Your task to perform on an android device: Show the shopping cart on ebay.com. Add "acer predator" to the cart on ebay.com Image 0: 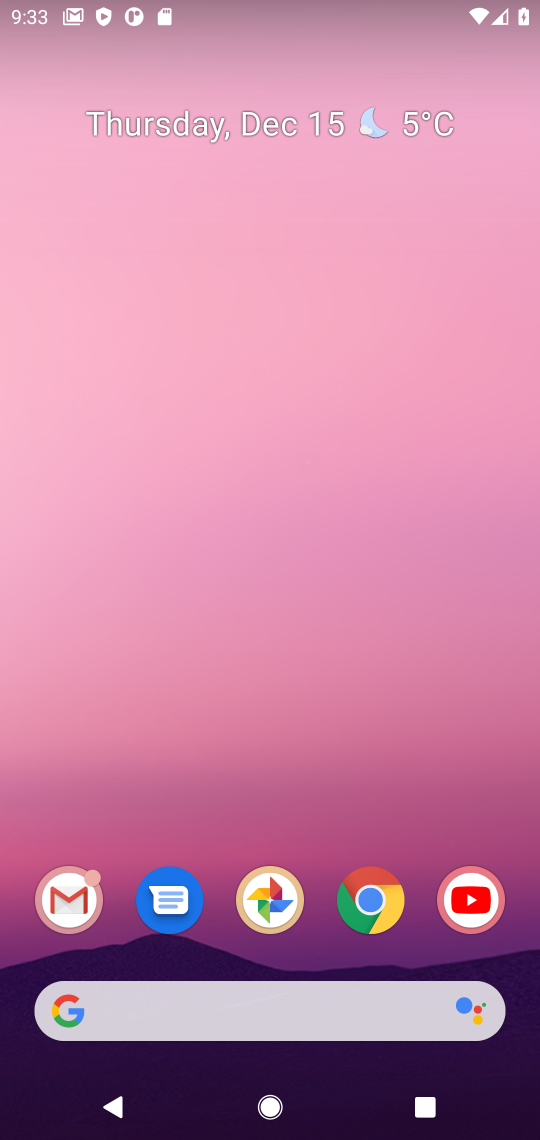
Step 0: click (379, 897)
Your task to perform on an android device: Show the shopping cart on ebay.com. Add "acer predator" to the cart on ebay.com Image 1: 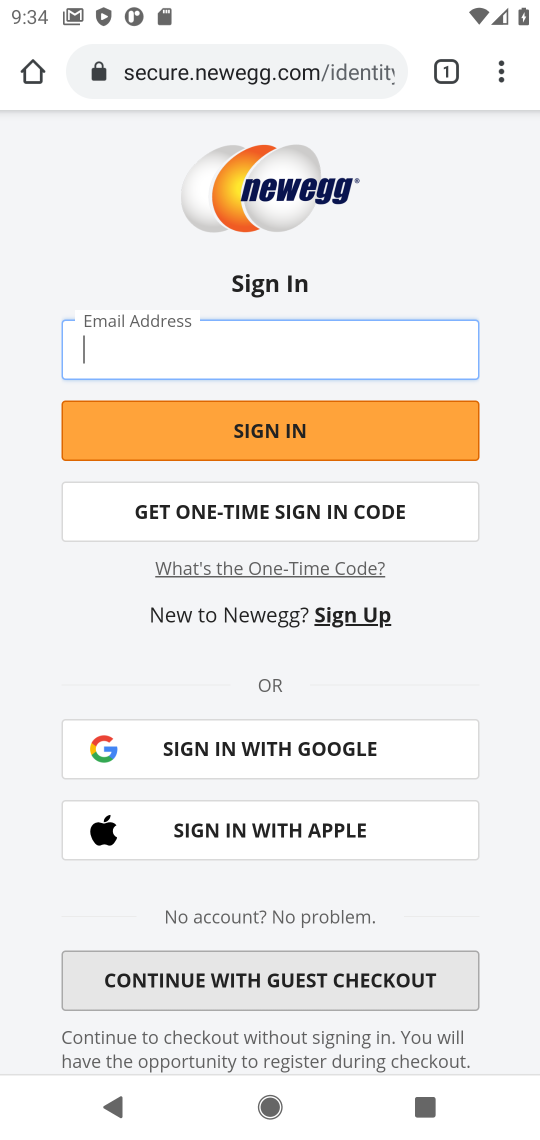
Step 1: click (332, 62)
Your task to perform on an android device: Show the shopping cart on ebay.com. Add "acer predator" to the cart on ebay.com Image 2: 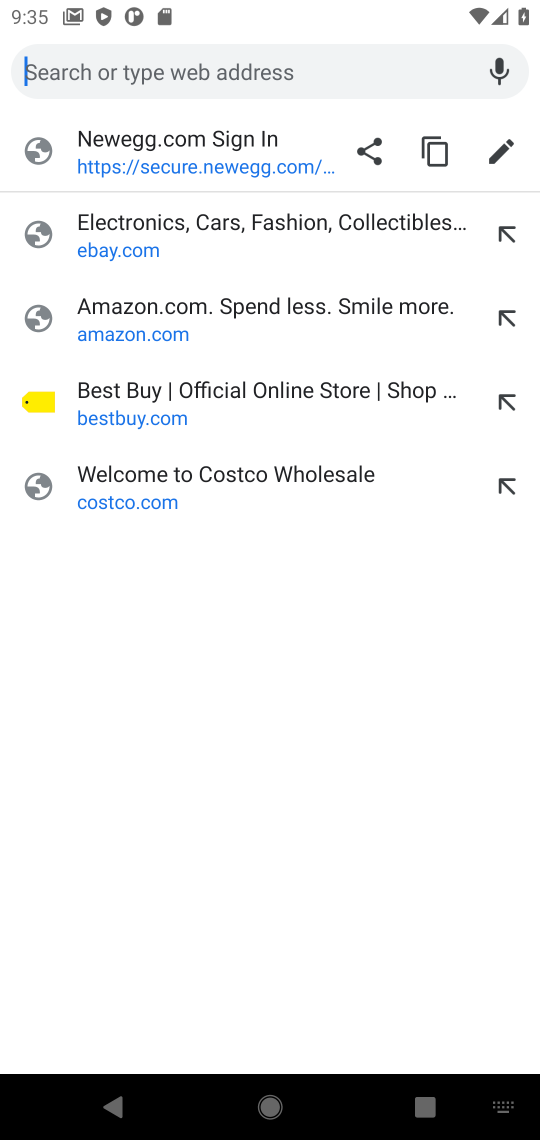
Step 2: click (182, 224)
Your task to perform on an android device: Show the shopping cart on ebay.com. Add "acer predator" to the cart on ebay.com Image 3: 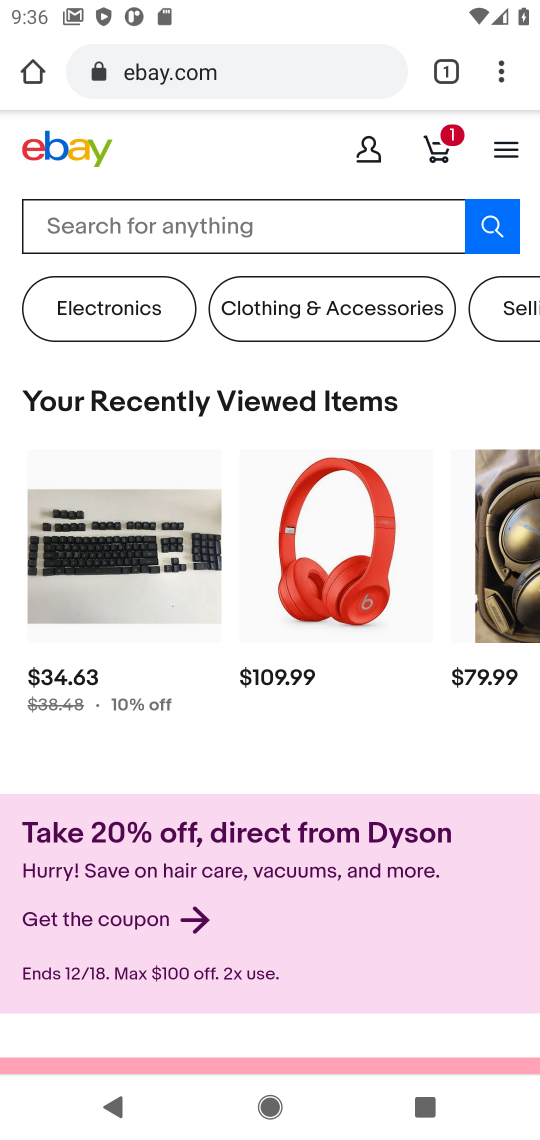
Step 3: click (442, 152)
Your task to perform on an android device: Show the shopping cart on ebay.com. Add "acer predator" to the cart on ebay.com Image 4: 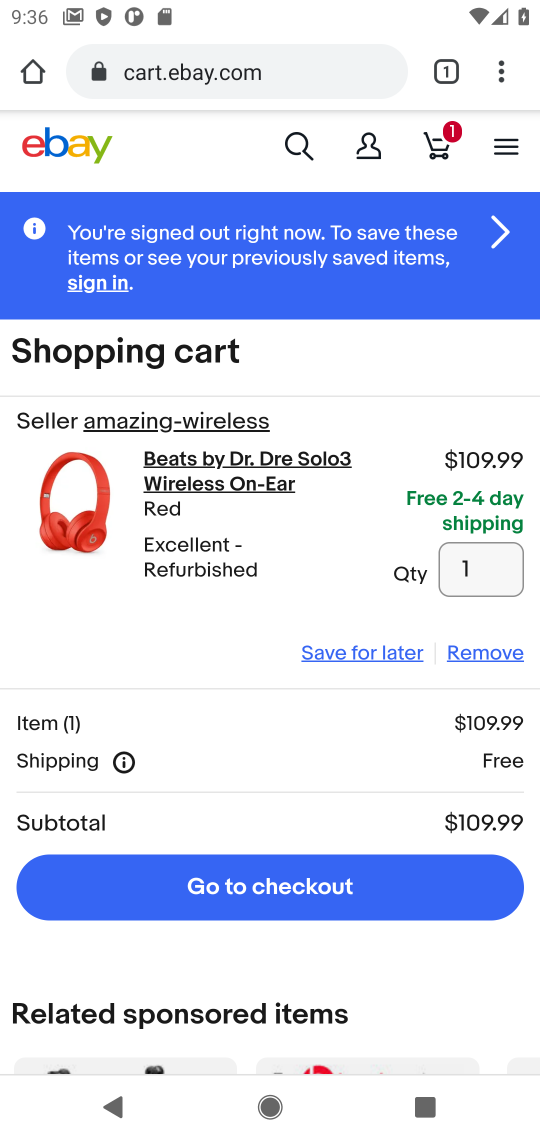
Step 4: click (298, 147)
Your task to perform on an android device: Show the shopping cart on ebay.com. Add "acer predator" to the cart on ebay.com Image 5: 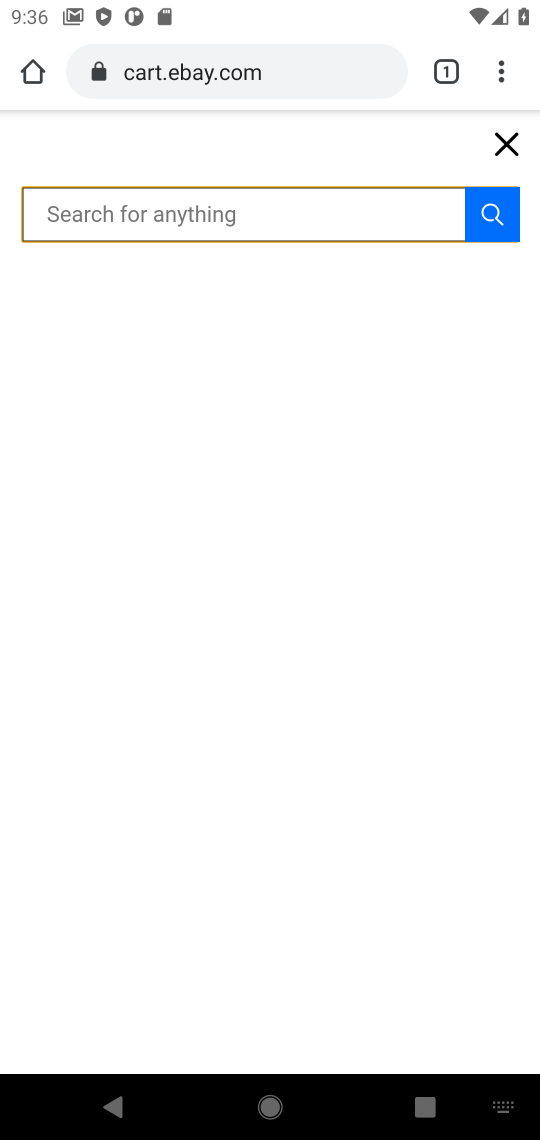
Step 5: press enter
Your task to perform on an android device: Show the shopping cart on ebay.com. Add "acer predator" to the cart on ebay.com Image 6: 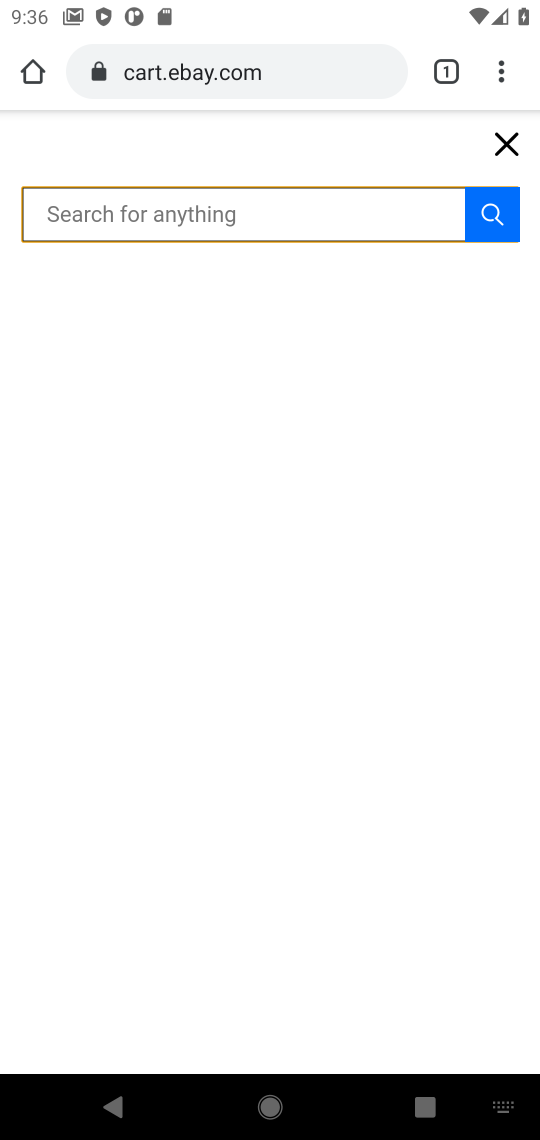
Step 6: type "acer predator"
Your task to perform on an android device: Show the shopping cart on ebay.com. Add "acer predator" to the cart on ebay.com Image 7: 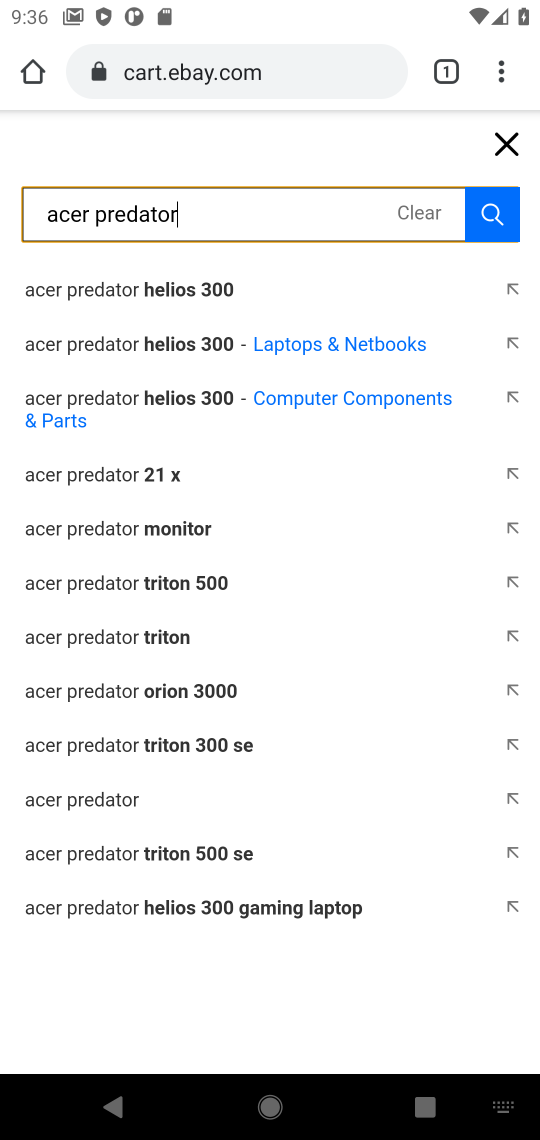
Step 7: click (116, 803)
Your task to perform on an android device: Show the shopping cart on ebay.com. Add "acer predator" to the cart on ebay.com Image 8: 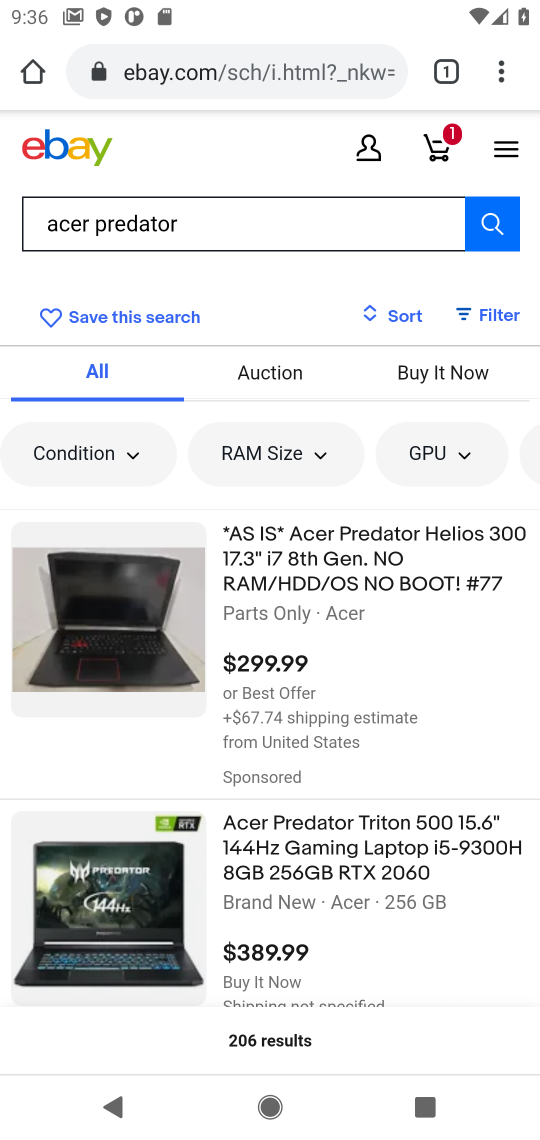
Step 8: click (120, 891)
Your task to perform on an android device: Show the shopping cart on ebay.com. Add "acer predator" to the cart on ebay.com Image 9: 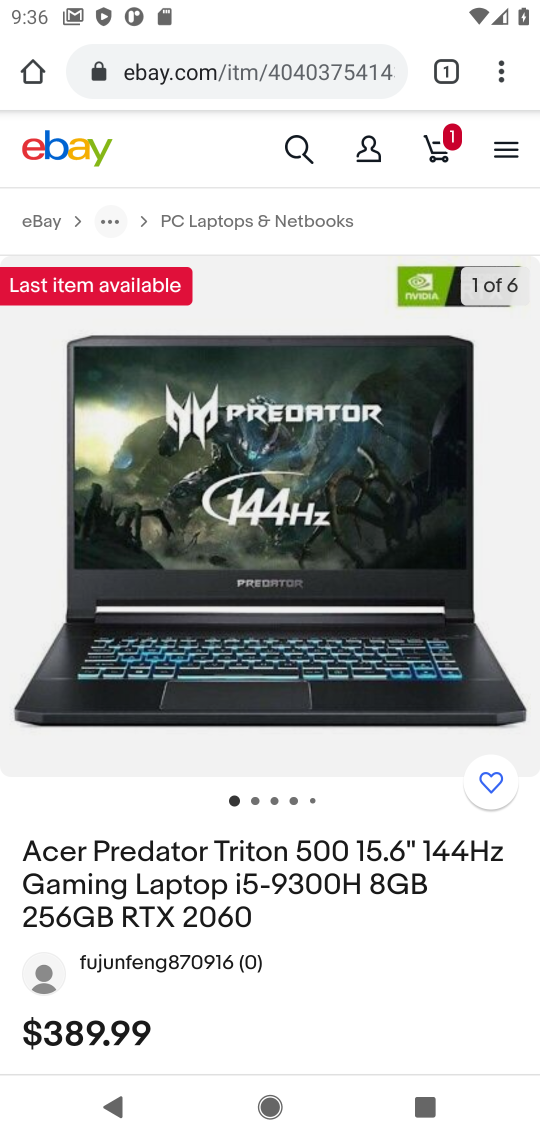
Step 9: drag from (326, 951) to (281, 501)
Your task to perform on an android device: Show the shopping cart on ebay.com. Add "acer predator" to the cart on ebay.com Image 10: 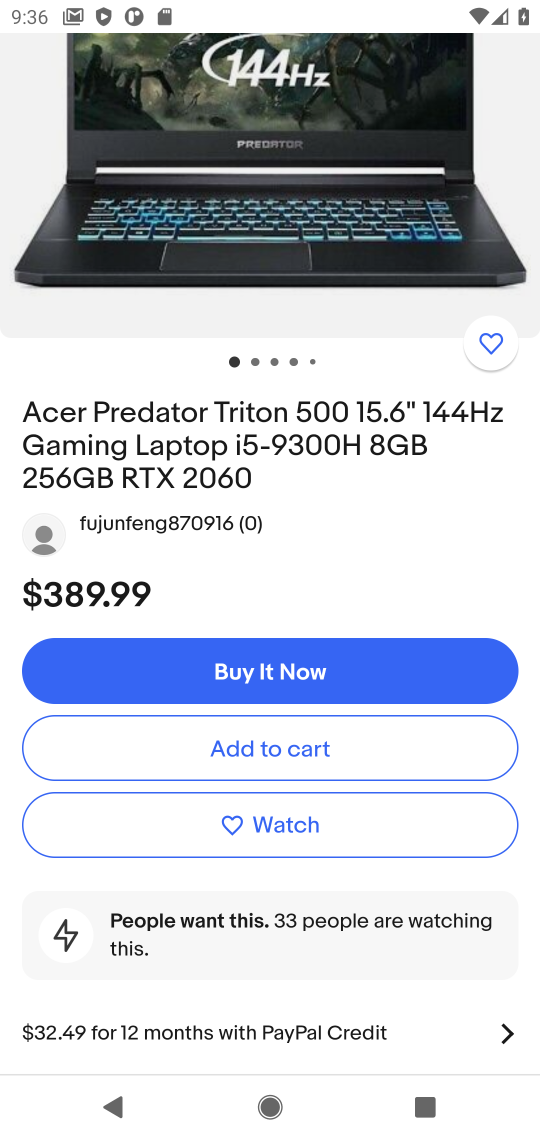
Step 10: click (292, 748)
Your task to perform on an android device: Show the shopping cart on ebay.com. Add "acer predator" to the cart on ebay.com Image 11: 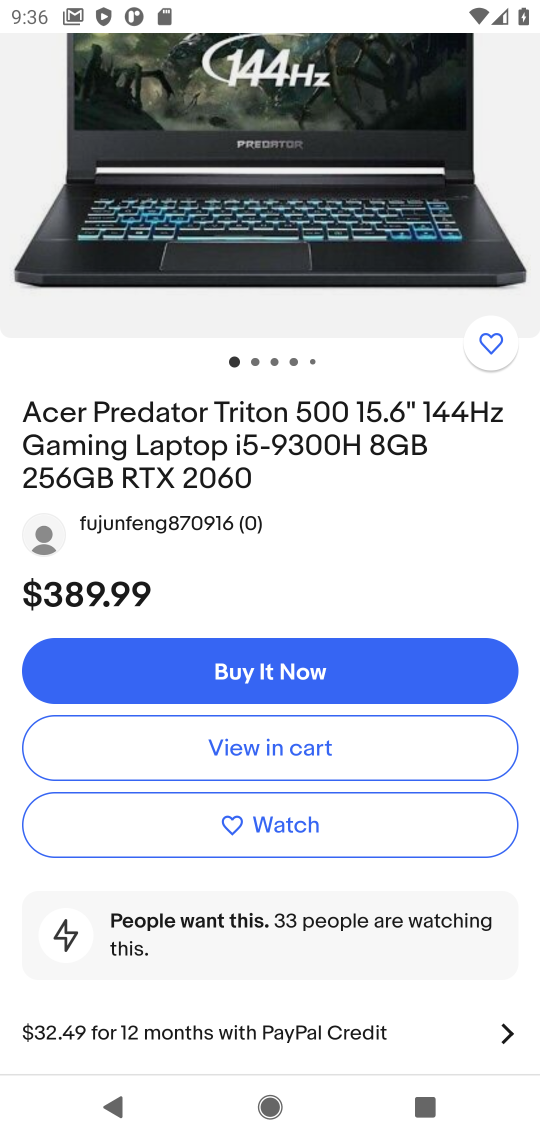
Step 11: click (303, 746)
Your task to perform on an android device: Show the shopping cart on ebay.com. Add "acer predator" to the cart on ebay.com Image 12: 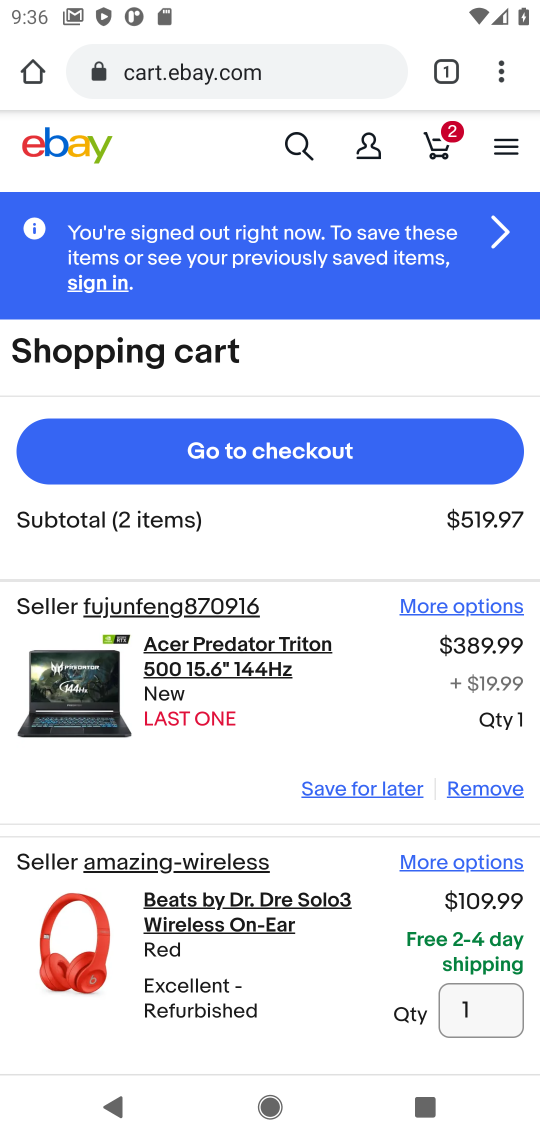
Step 12: task complete